Your task to perform on an android device: check google app version Image 0: 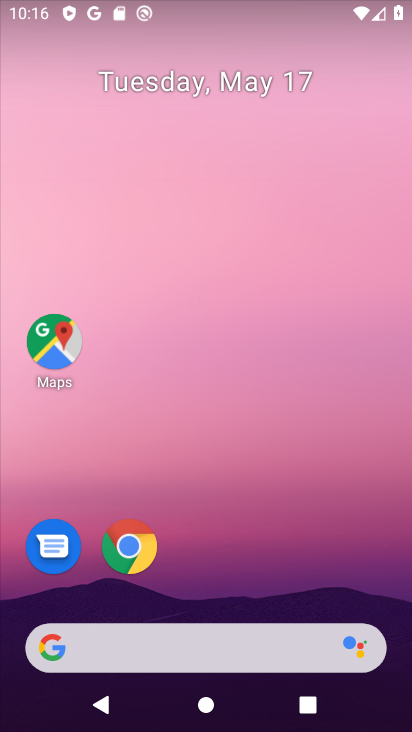
Step 0: click (49, 651)
Your task to perform on an android device: check google app version Image 1: 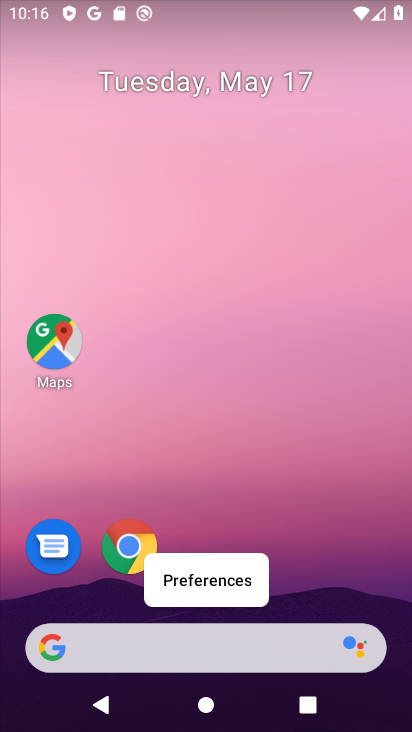
Step 1: click (38, 653)
Your task to perform on an android device: check google app version Image 2: 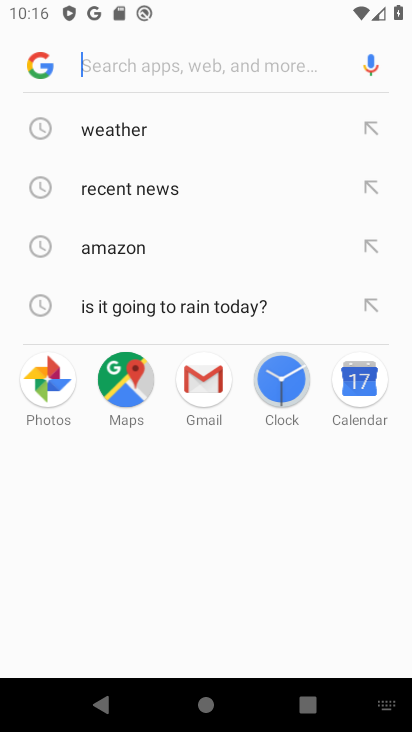
Step 2: click (30, 57)
Your task to perform on an android device: check google app version Image 3: 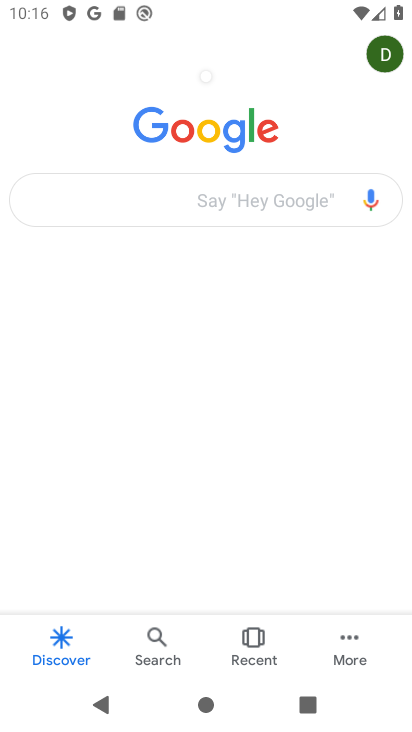
Step 3: click (348, 647)
Your task to perform on an android device: check google app version Image 4: 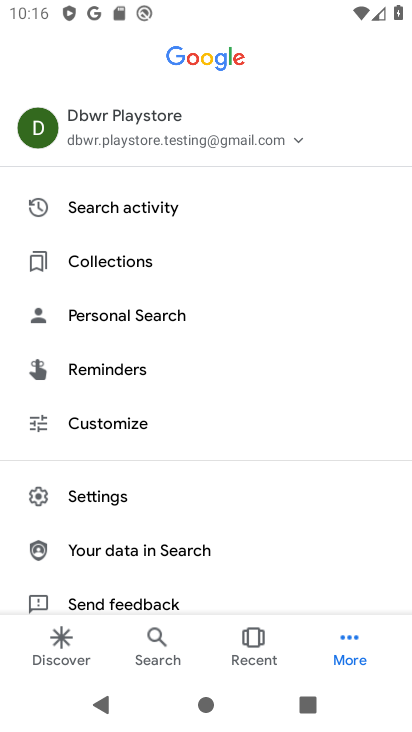
Step 4: click (114, 500)
Your task to perform on an android device: check google app version Image 5: 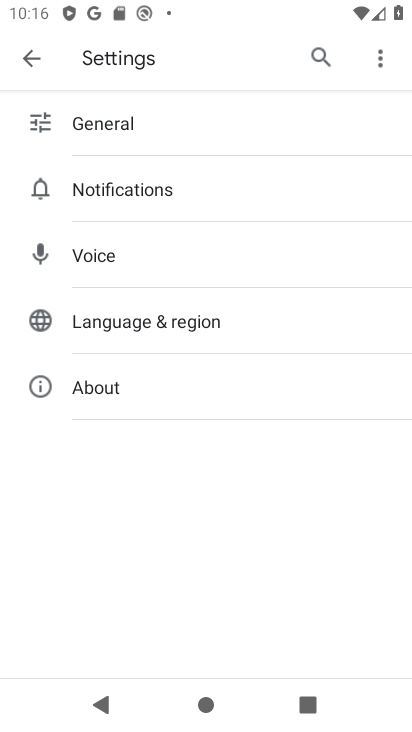
Step 5: click (114, 388)
Your task to perform on an android device: check google app version Image 6: 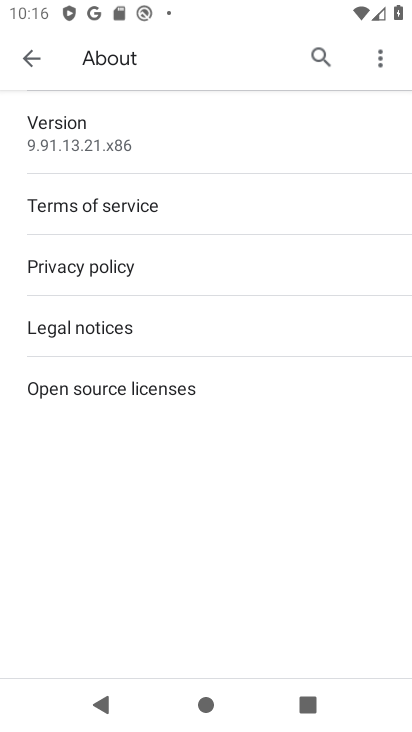
Step 6: task complete